Your task to perform on an android device: Clear all items from cart on amazon. Add usb-a to usb-b to the cart on amazon Image 0: 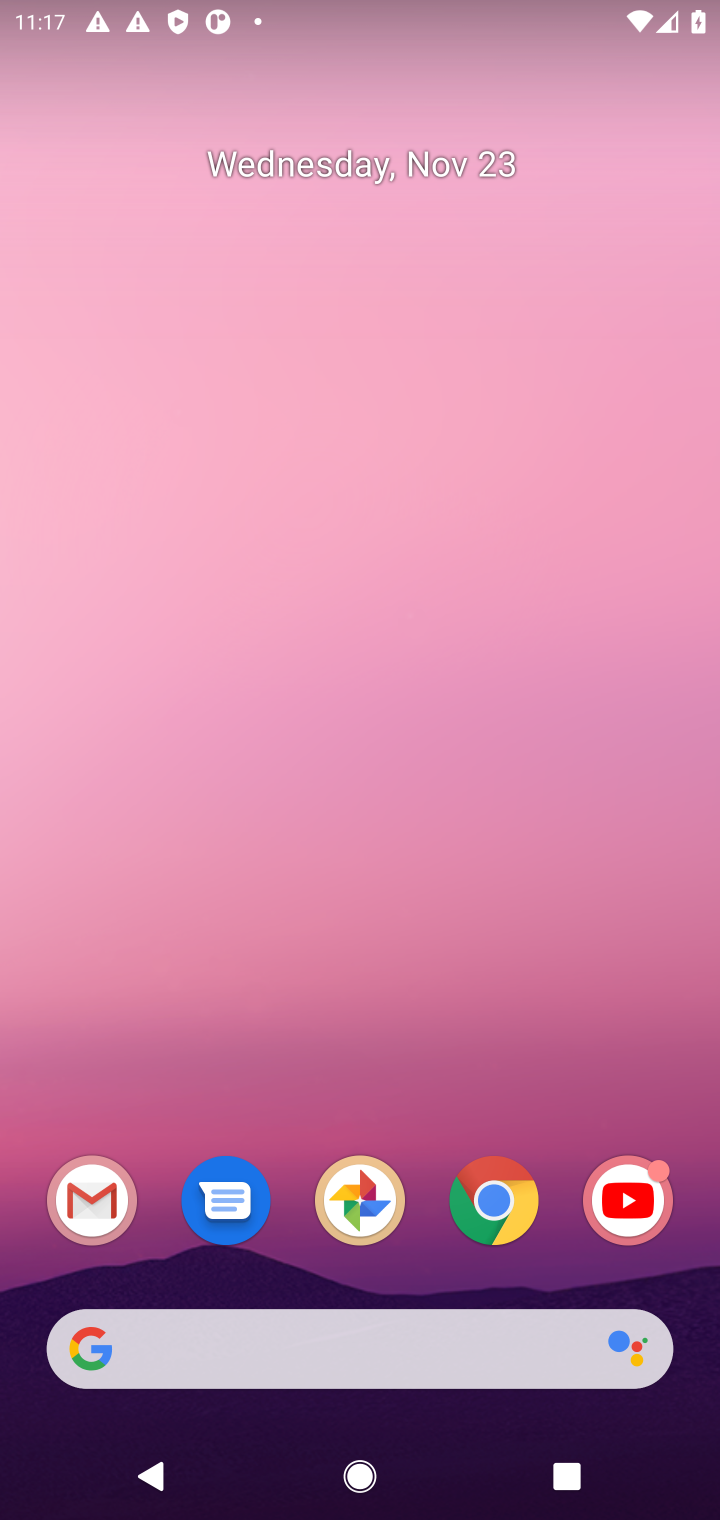
Step 0: click (432, 1337)
Your task to perform on an android device: Clear all items from cart on amazon. Add usb-a to usb-b to the cart on amazon Image 1: 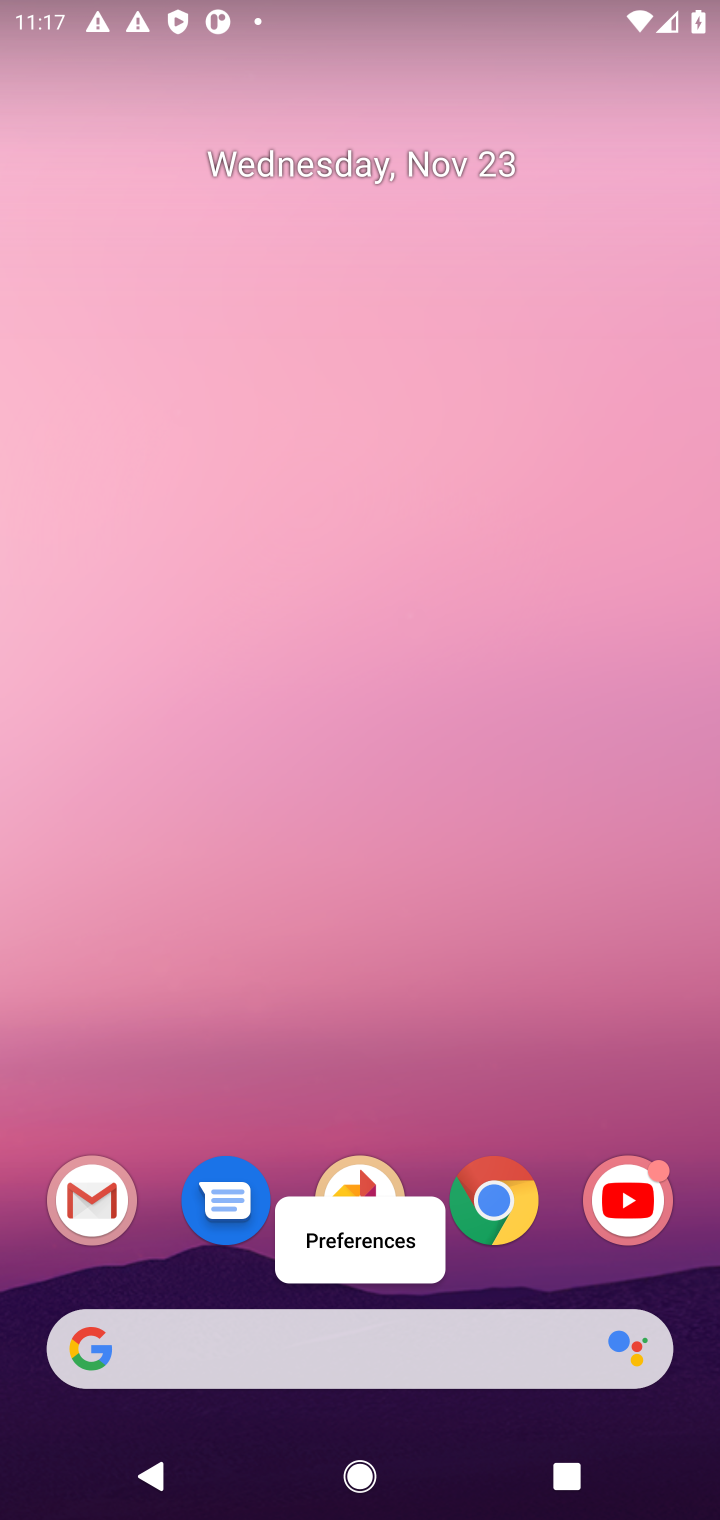
Step 1: type "amazon"
Your task to perform on an android device: Clear all items from cart on amazon. Add usb-a to usb-b to the cart on amazon Image 2: 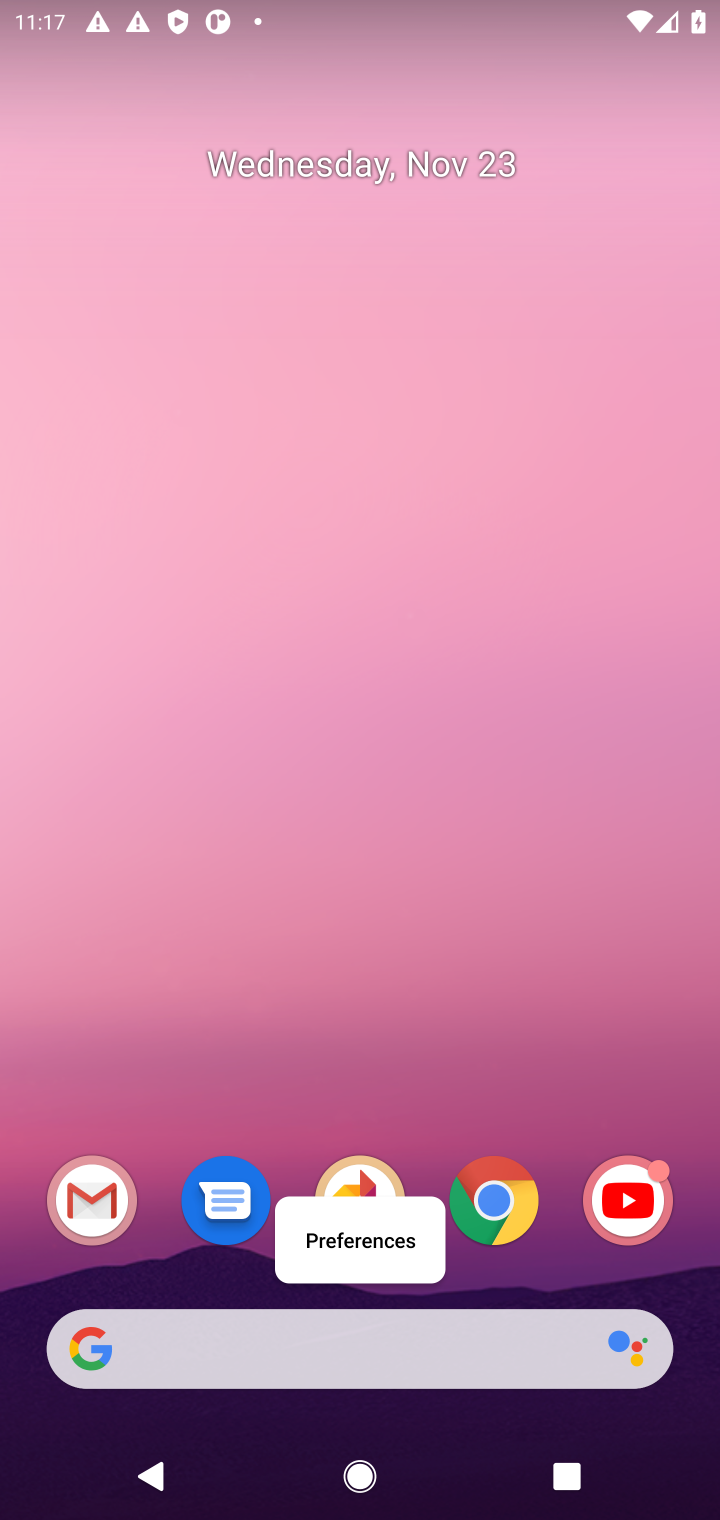
Step 2: click (489, 1350)
Your task to perform on an android device: Clear all items from cart on amazon. Add usb-a to usb-b to the cart on amazon Image 3: 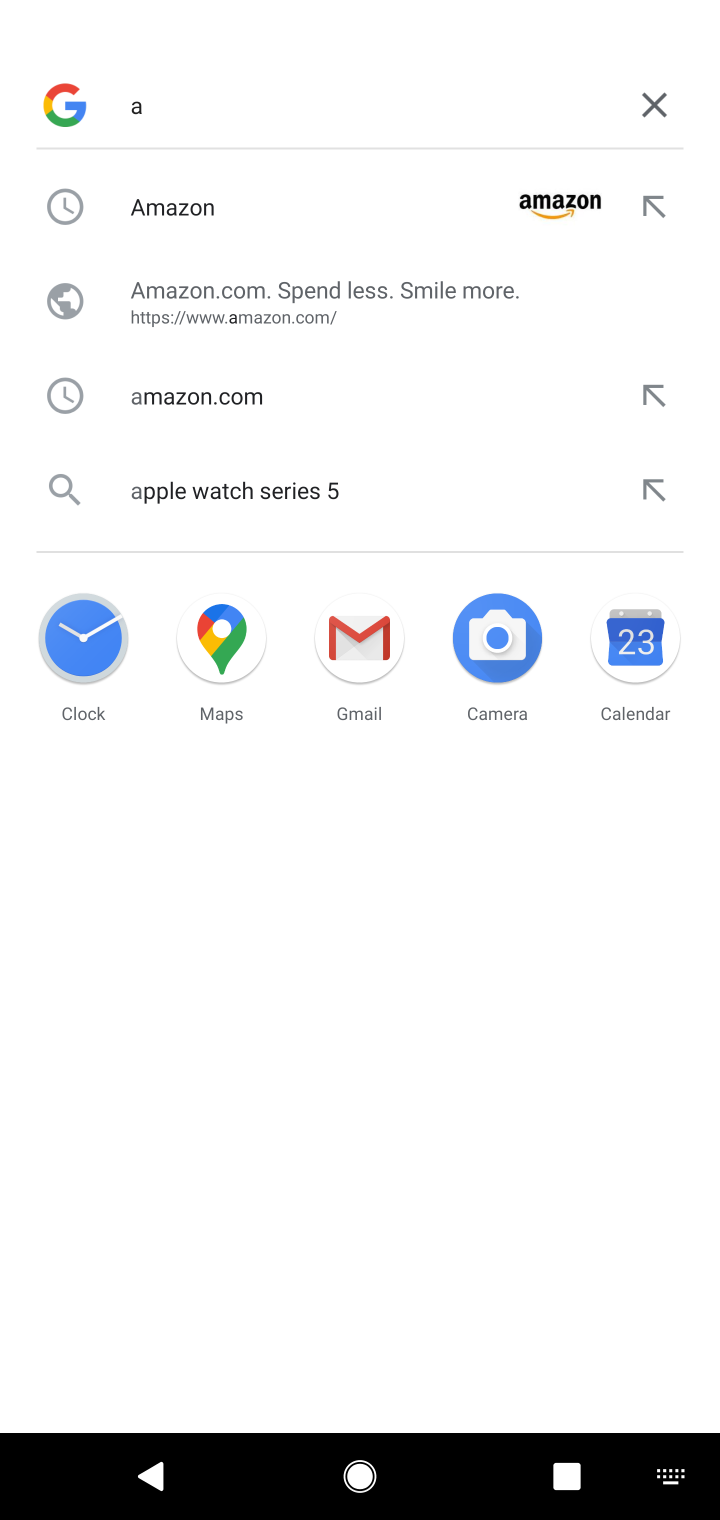
Step 3: click (476, 238)
Your task to perform on an android device: Clear all items from cart on amazon. Add usb-a to usb-b to the cart on amazon Image 4: 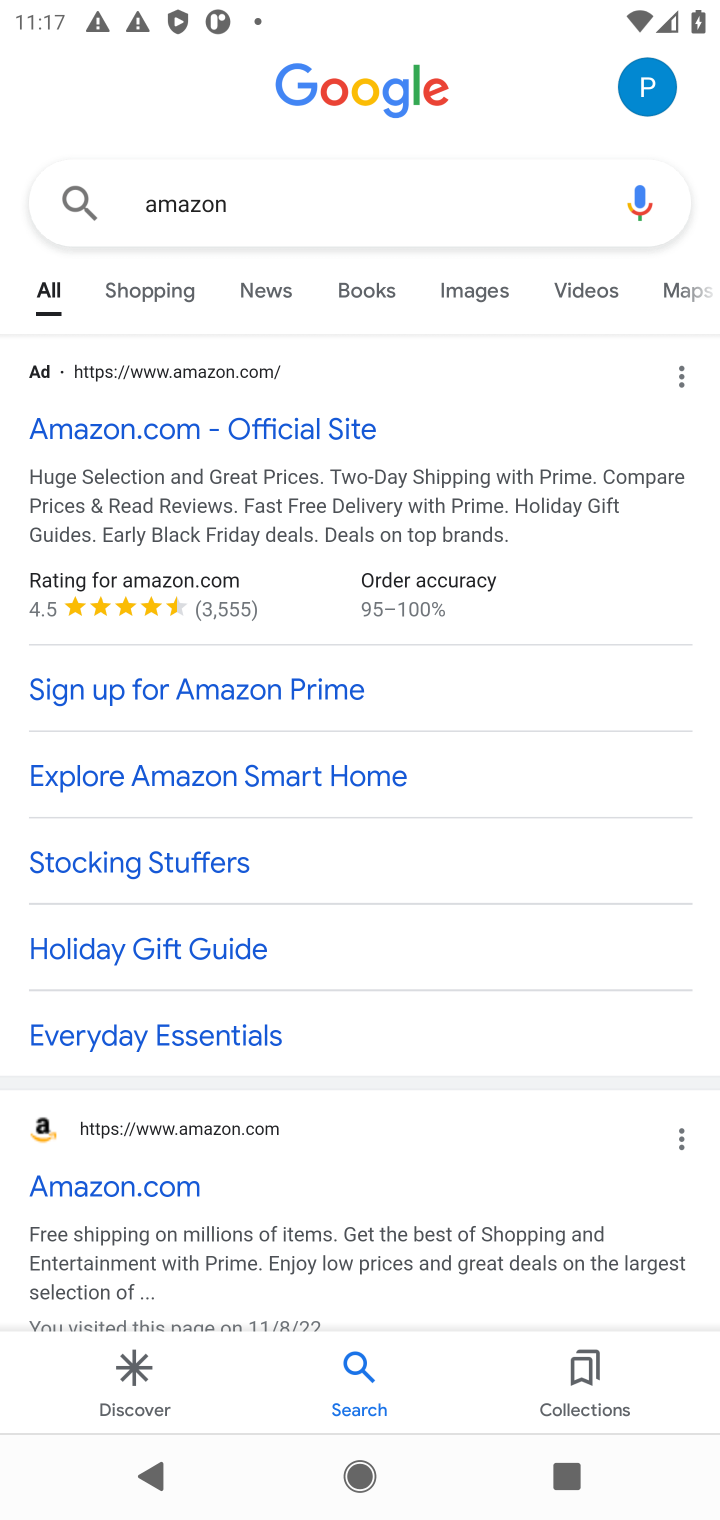
Step 4: click (129, 455)
Your task to perform on an android device: Clear all items from cart on amazon. Add usb-a to usb-b to the cart on amazon Image 5: 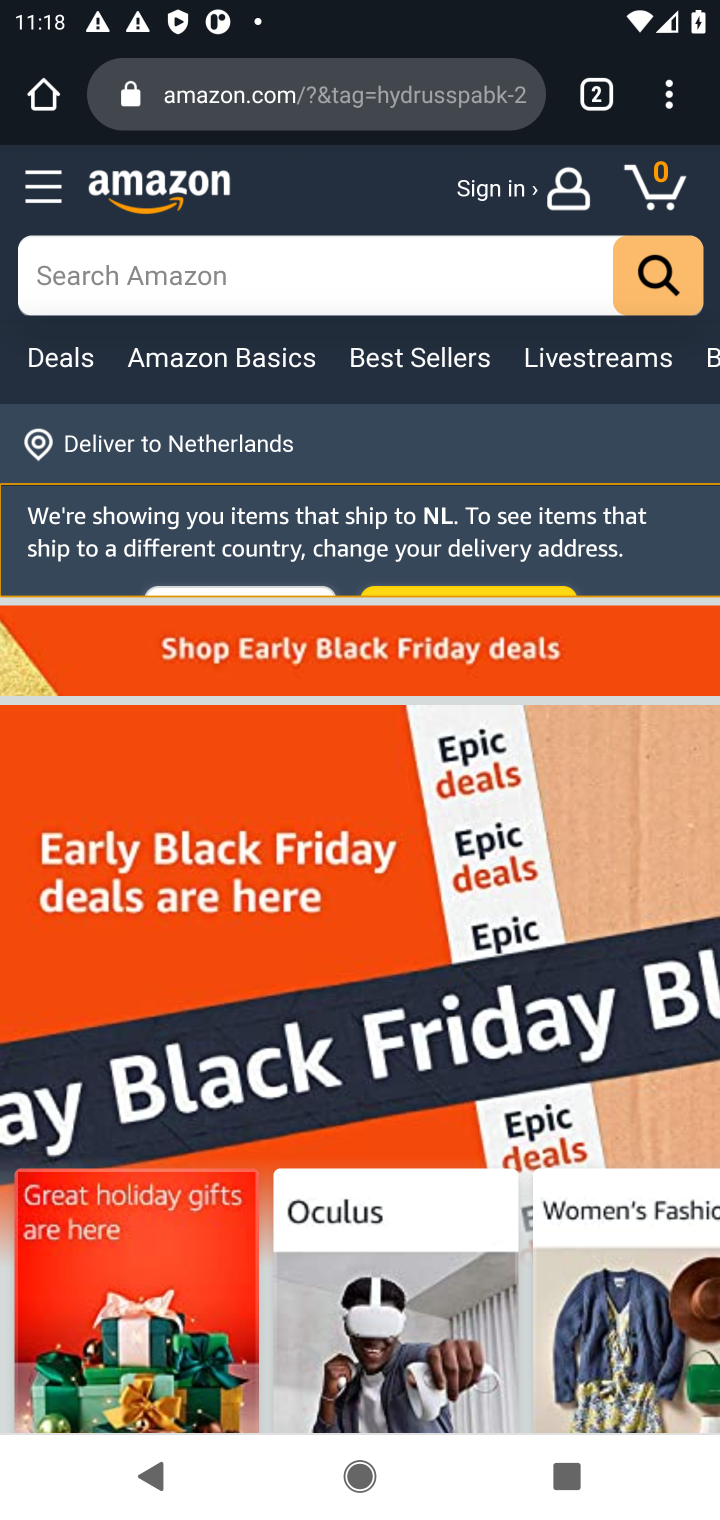
Step 5: click (401, 277)
Your task to perform on an android device: Clear all items from cart on amazon. Add usb-a to usb-b to the cart on amazon Image 6: 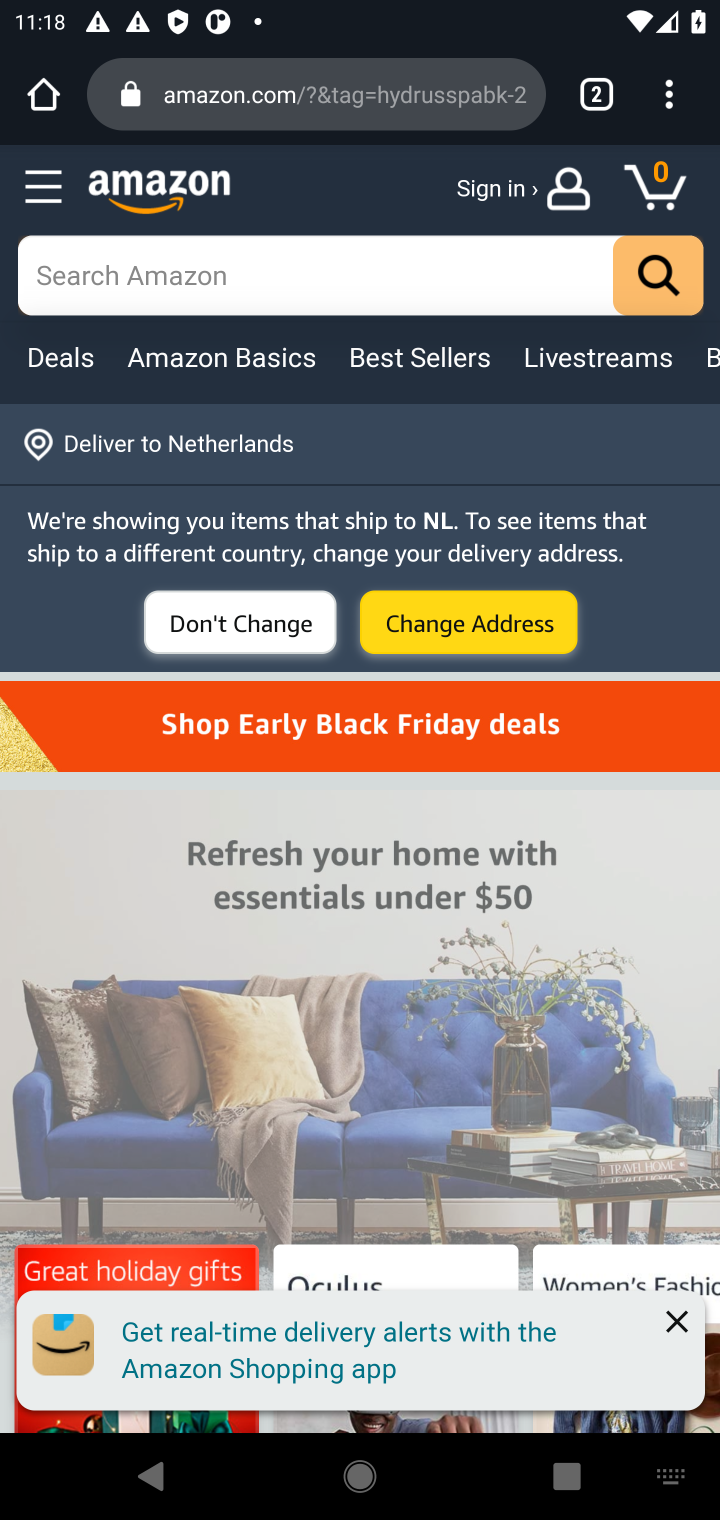
Step 6: type "usb-a"
Your task to perform on an android device: Clear all items from cart on amazon. Add usb-a to usb-b to the cart on amazon Image 7: 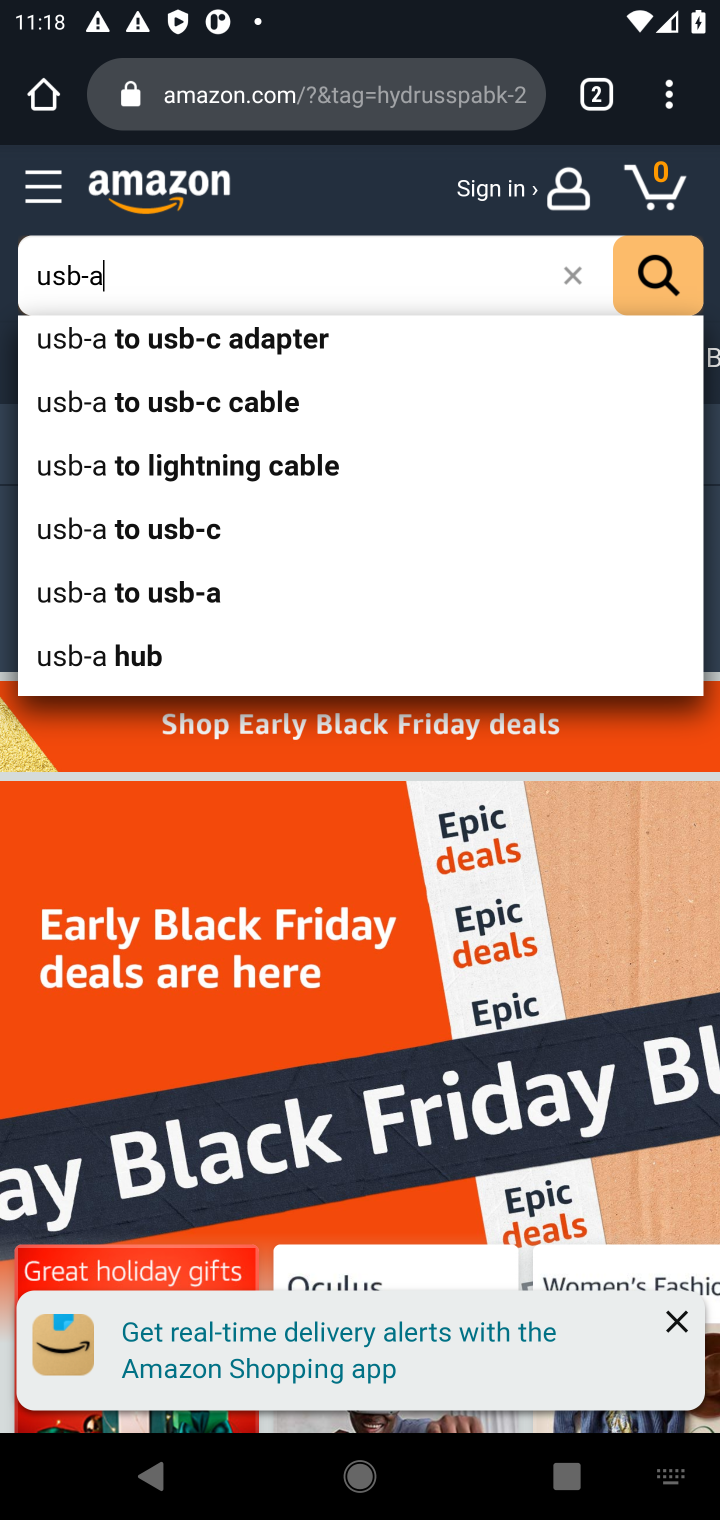
Step 7: click (667, 302)
Your task to perform on an android device: Clear all items from cart on amazon. Add usb-a to usb-b to the cart on amazon Image 8: 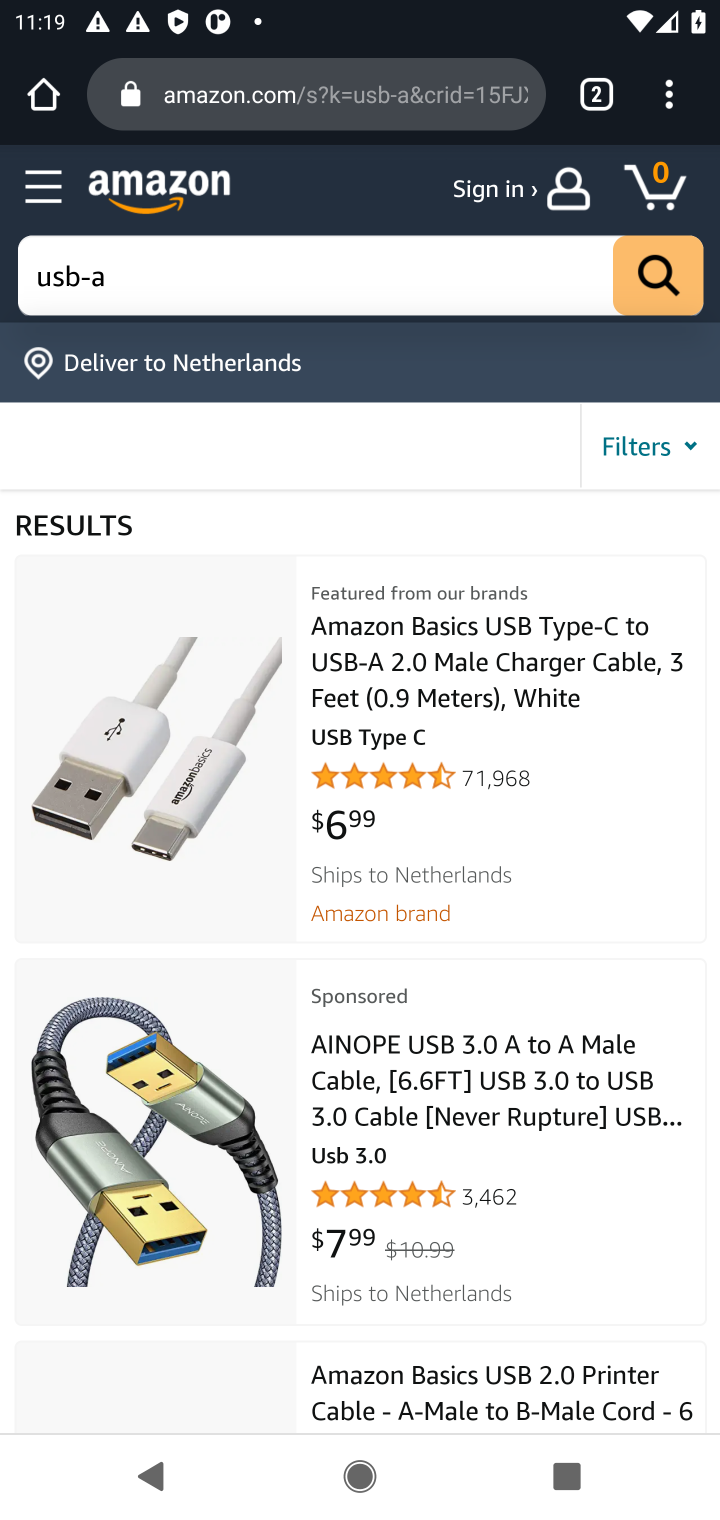
Step 8: click (316, 746)
Your task to perform on an android device: Clear all items from cart on amazon. Add usb-a to usb-b to the cart on amazon Image 9: 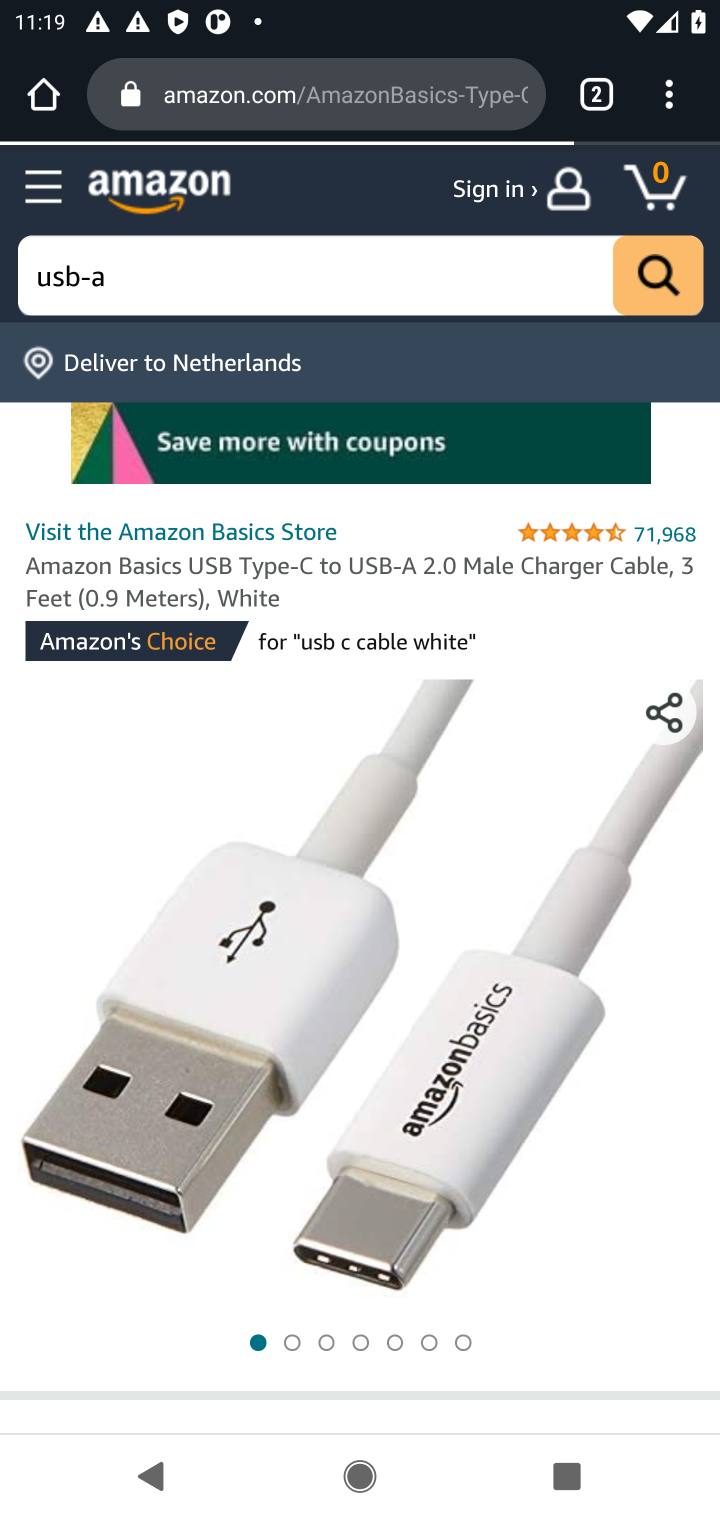
Step 9: drag from (329, 986) to (366, 463)
Your task to perform on an android device: Clear all items from cart on amazon. Add usb-a to usb-b to the cart on amazon Image 10: 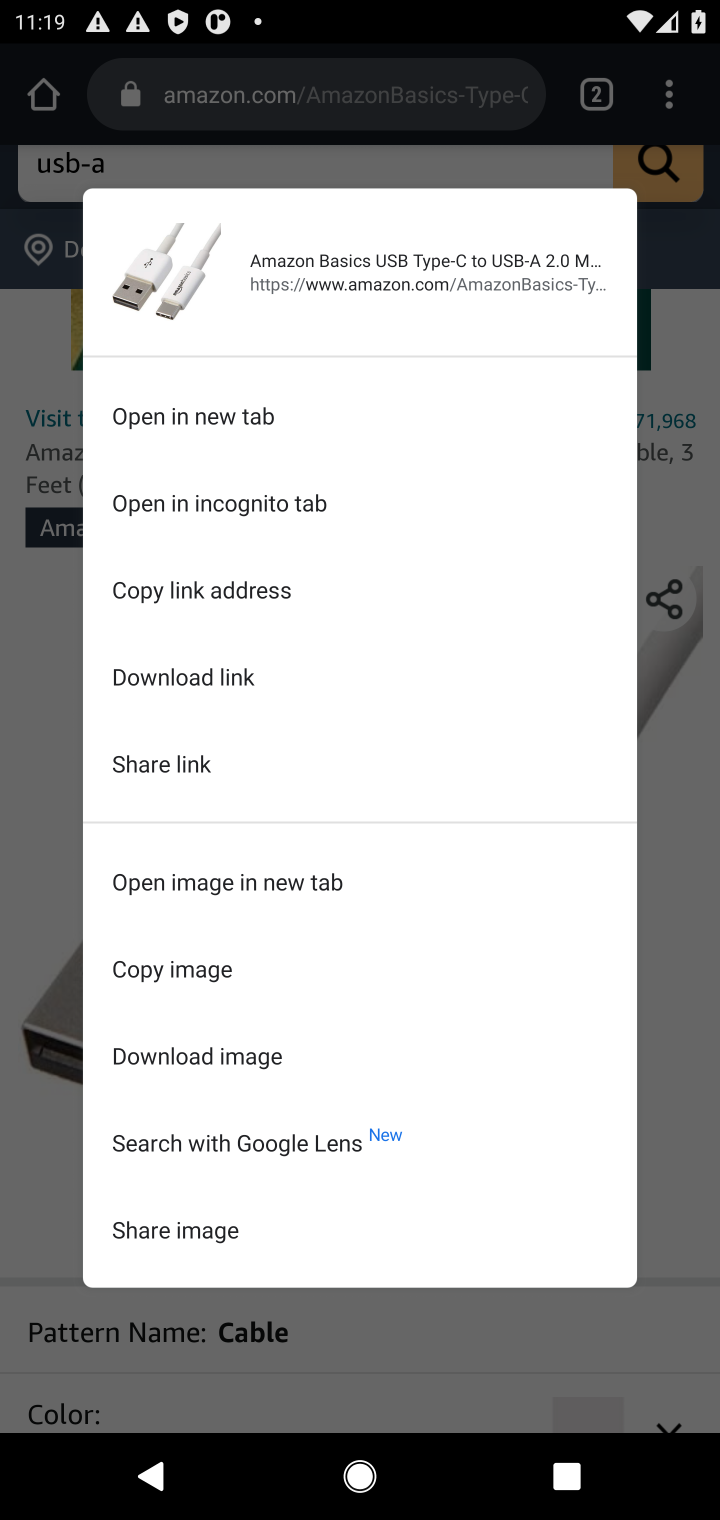
Step 10: click (676, 891)
Your task to perform on an android device: Clear all items from cart on amazon. Add usb-a to usb-b to the cart on amazon Image 11: 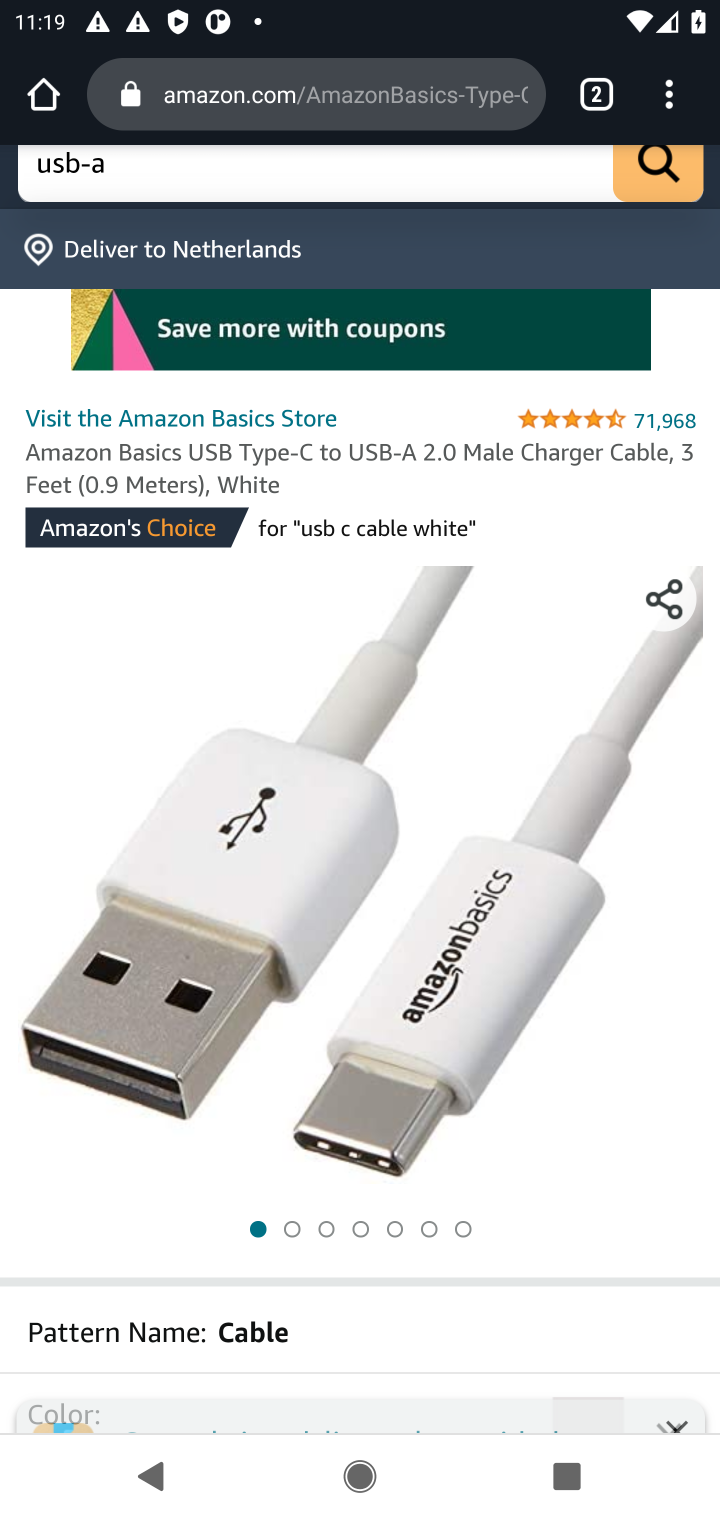
Step 11: task complete